Your task to perform on an android device: turn off picture-in-picture Image 0: 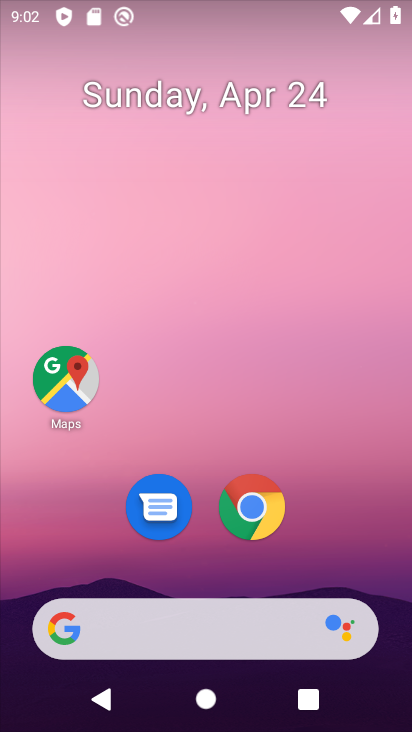
Step 0: drag from (373, 390) to (397, 61)
Your task to perform on an android device: turn off picture-in-picture Image 1: 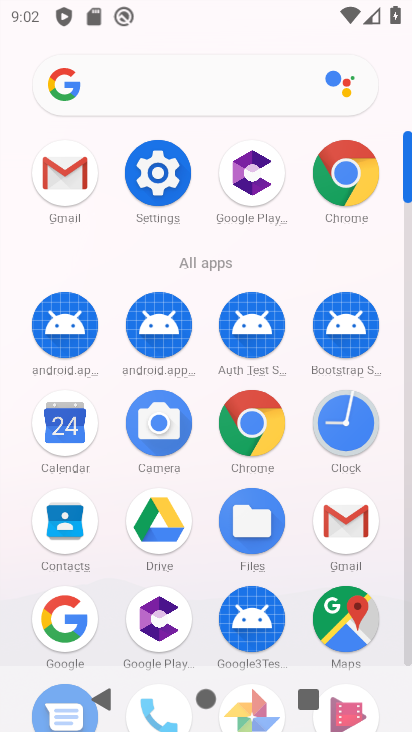
Step 1: click (342, 172)
Your task to perform on an android device: turn off picture-in-picture Image 2: 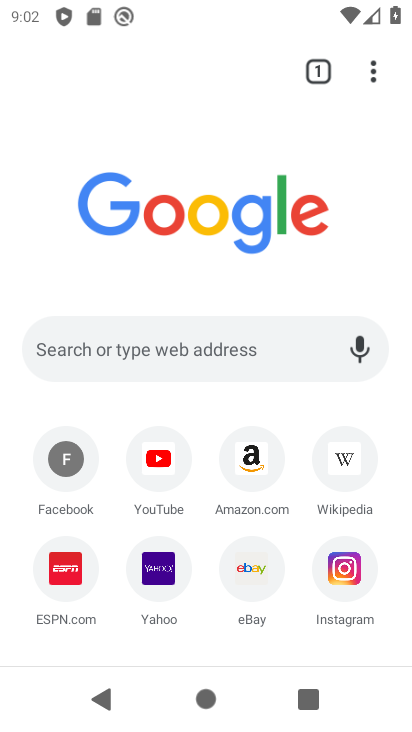
Step 2: click (210, 710)
Your task to perform on an android device: turn off picture-in-picture Image 3: 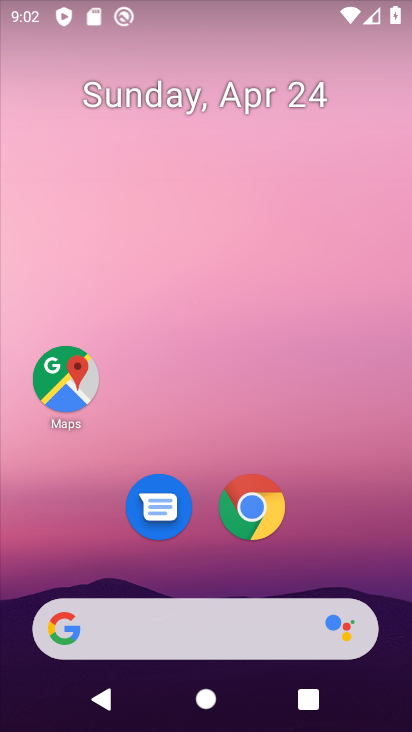
Step 3: click (246, 510)
Your task to perform on an android device: turn off picture-in-picture Image 4: 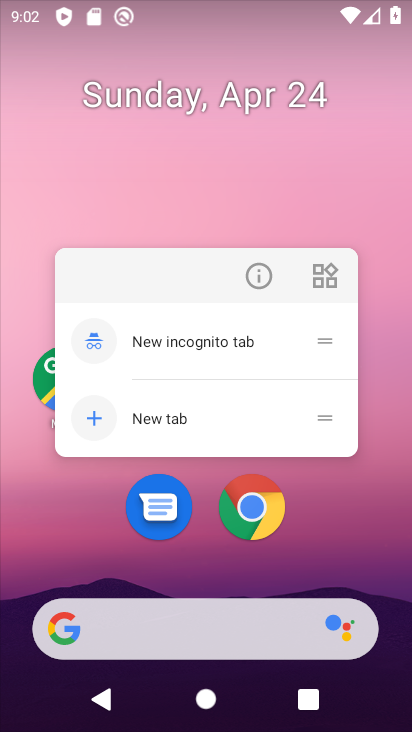
Step 4: click (248, 280)
Your task to perform on an android device: turn off picture-in-picture Image 5: 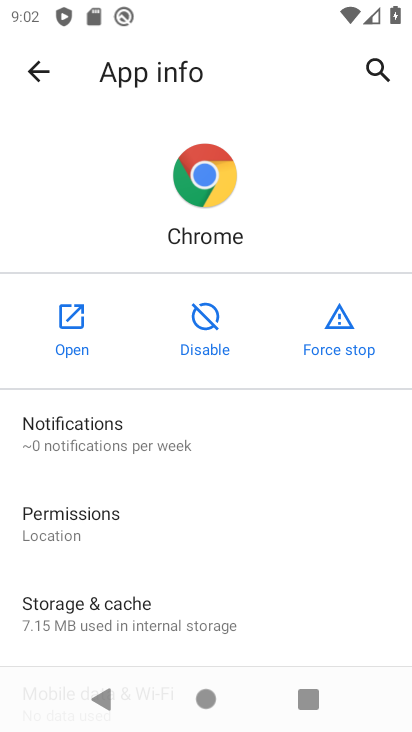
Step 5: drag from (217, 576) to (302, 285)
Your task to perform on an android device: turn off picture-in-picture Image 6: 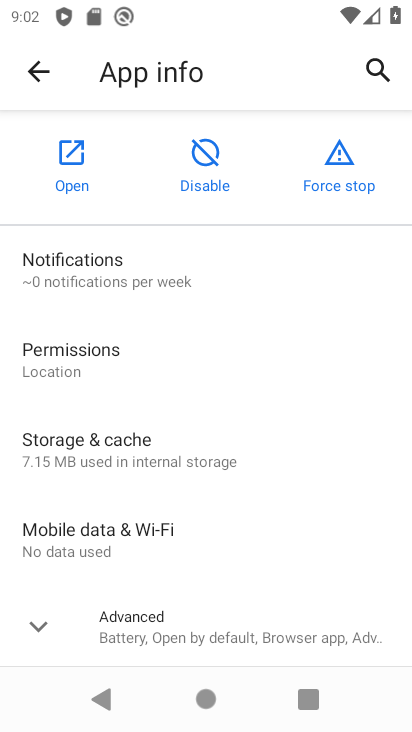
Step 6: drag from (319, 484) to (365, 188)
Your task to perform on an android device: turn off picture-in-picture Image 7: 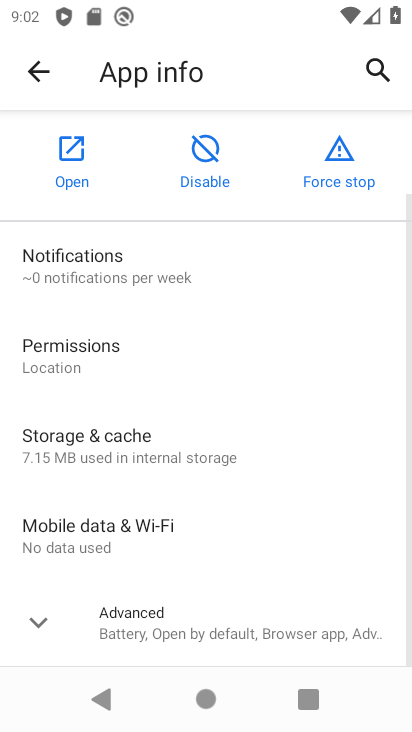
Step 7: click (177, 631)
Your task to perform on an android device: turn off picture-in-picture Image 8: 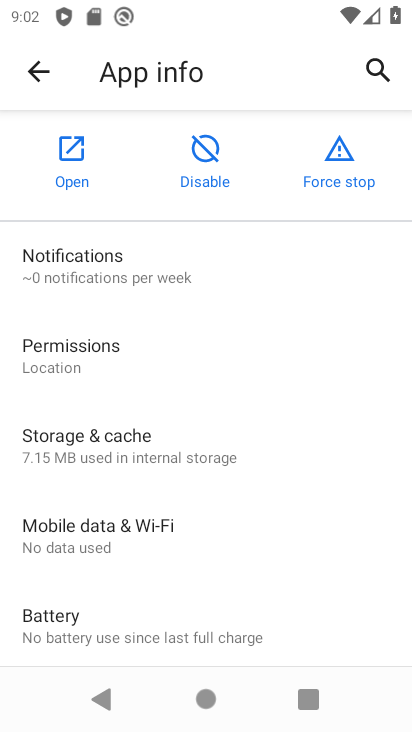
Step 8: drag from (182, 594) to (184, 301)
Your task to perform on an android device: turn off picture-in-picture Image 9: 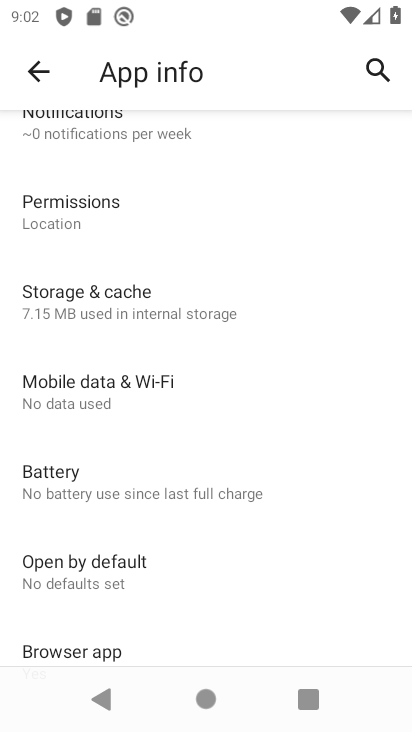
Step 9: drag from (158, 609) to (248, 210)
Your task to perform on an android device: turn off picture-in-picture Image 10: 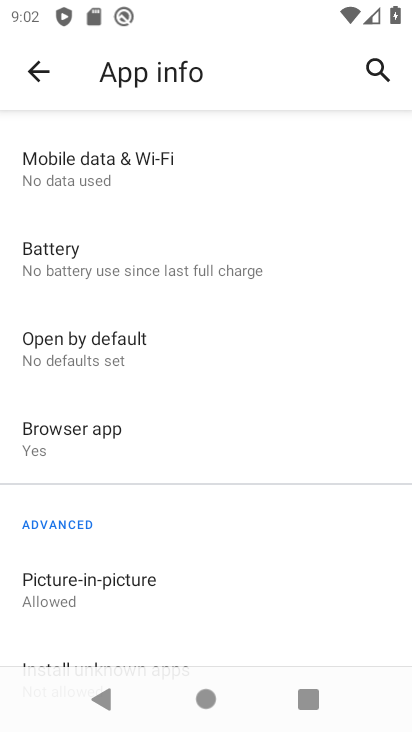
Step 10: drag from (259, 525) to (308, 248)
Your task to perform on an android device: turn off picture-in-picture Image 11: 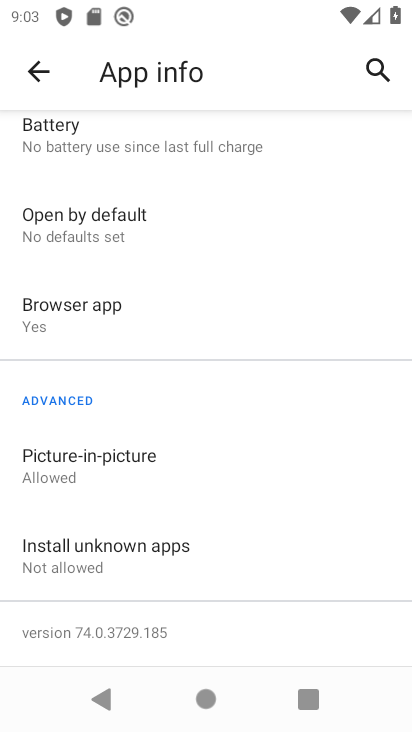
Step 11: click (30, 465)
Your task to perform on an android device: turn off picture-in-picture Image 12: 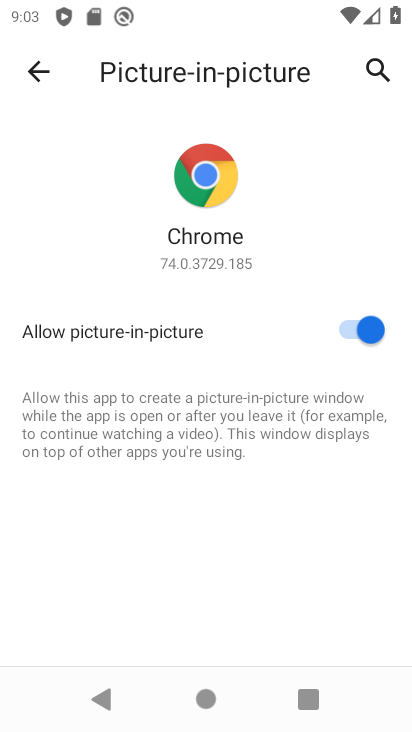
Step 12: click (357, 327)
Your task to perform on an android device: turn off picture-in-picture Image 13: 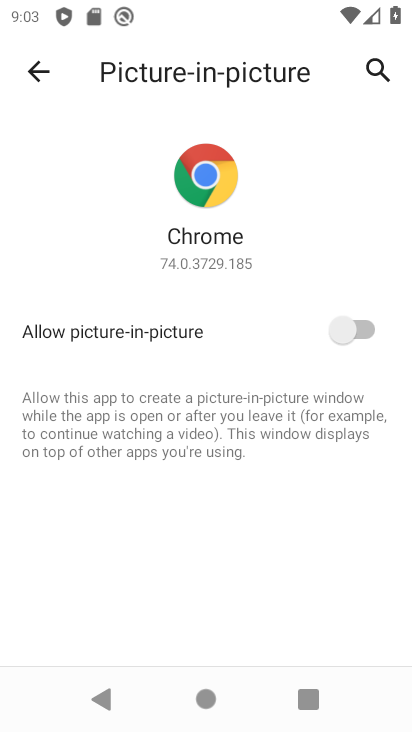
Step 13: task complete